Your task to perform on an android device: Open sound settings Image 0: 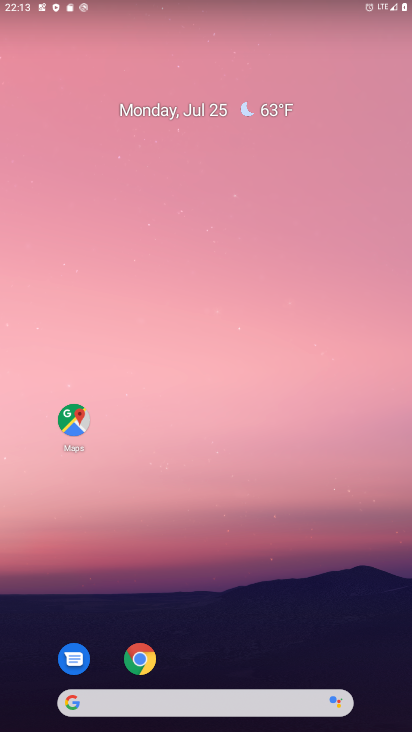
Step 0: drag from (193, 728) to (224, 110)
Your task to perform on an android device: Open sound settings Image 1: 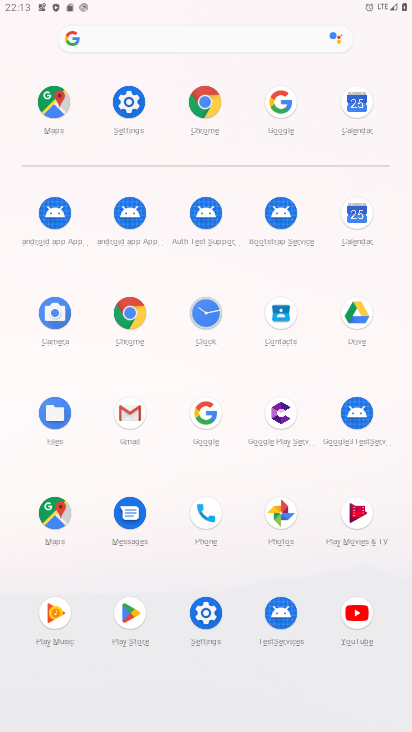
Step 1: click (129, 97)
Your task to perform on an android device: Open sound settings Image 2: 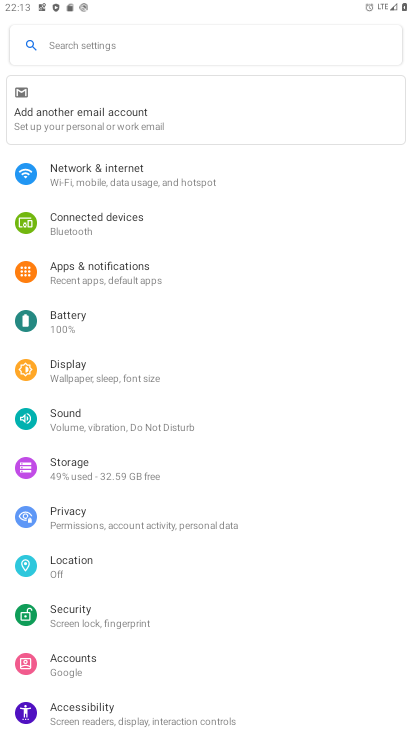
Step 2: click (69, 418)
Your task to perform on an android device: Open sound settings Image 3: 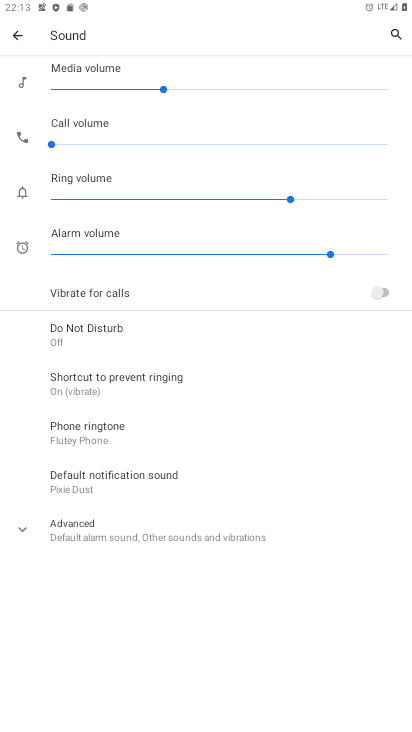
Step 3: task complete